Your task to perform on an android device: Open notification settings Image 0: 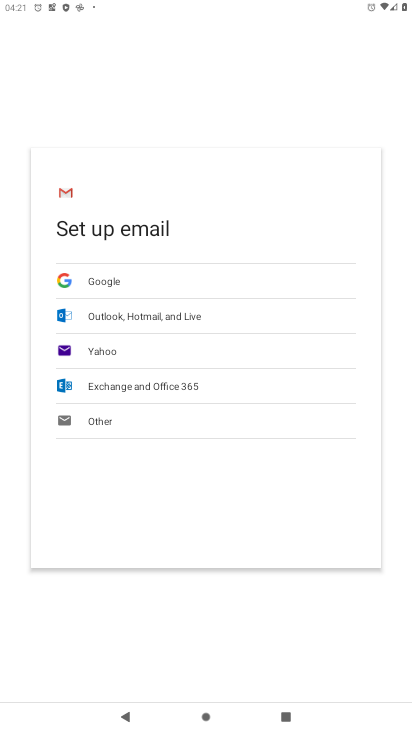
Step 0: press home button
Your task to perform on an android device: Open notification settings Image 1: 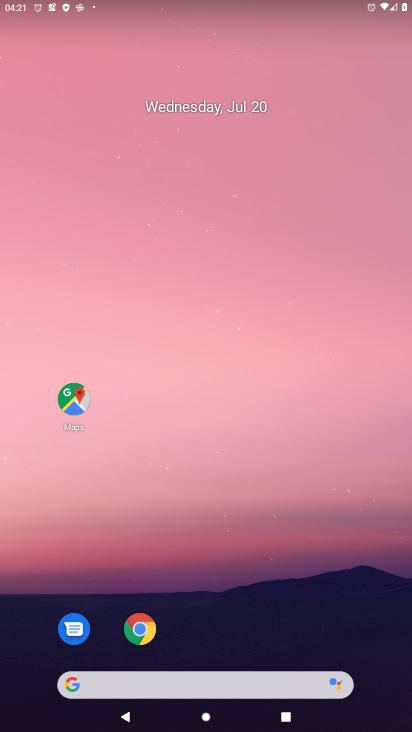
Step 1: drag from (384, 664) to (367, 144)
Your task to perform on an android device: Open notification settings Image 2: 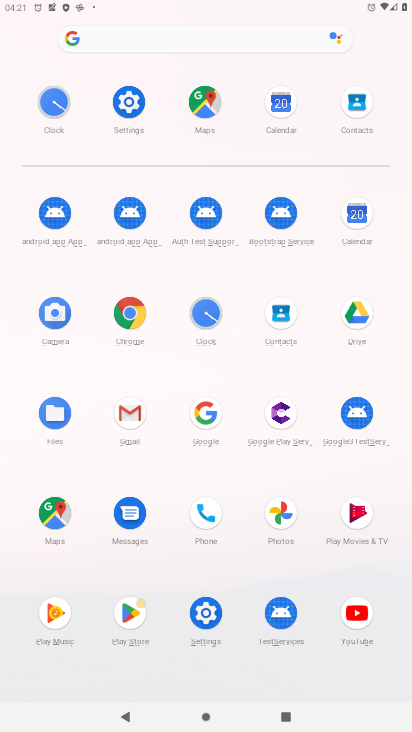
Step 2: click (203, 612)
Your task to perform on an android device: Open notification settings Image 3: 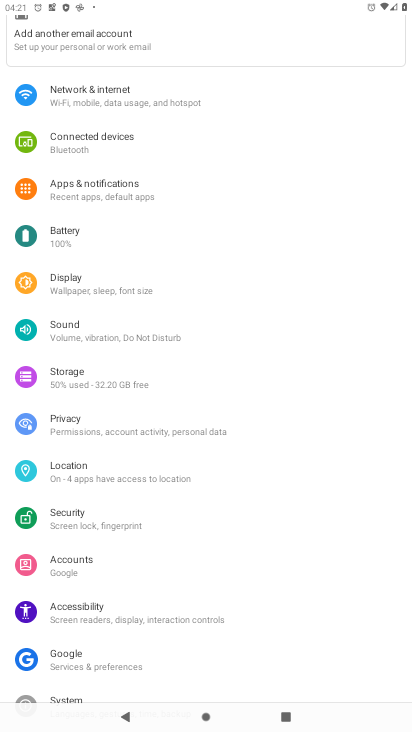
Step 3: click (94, 192)
Your task to perform on an android device: Open notification settings Image 4: 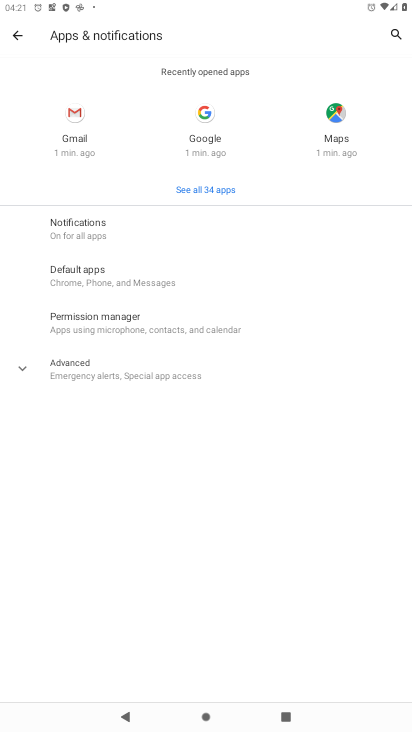
Step 4: click (91, 224)
Your task to perform on an android device: Open notification settings Image 5: 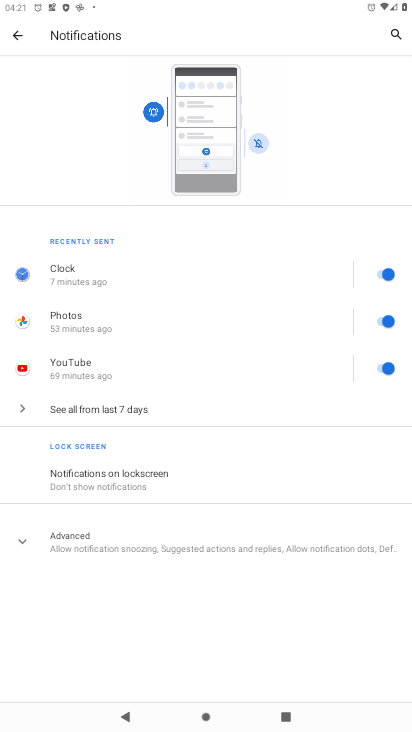
Step 5: click (22, 541)
Your task to perform on an android device: Open notification settings Image 6: 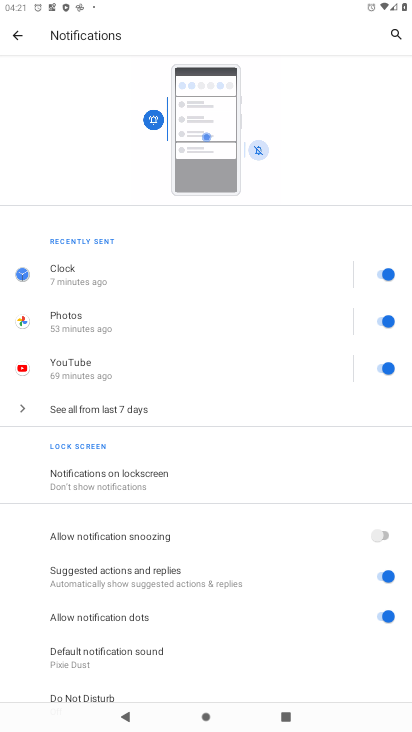
Step 6: click (379, 611)
Your task to perform on an android device: Open notification settings Image 7: 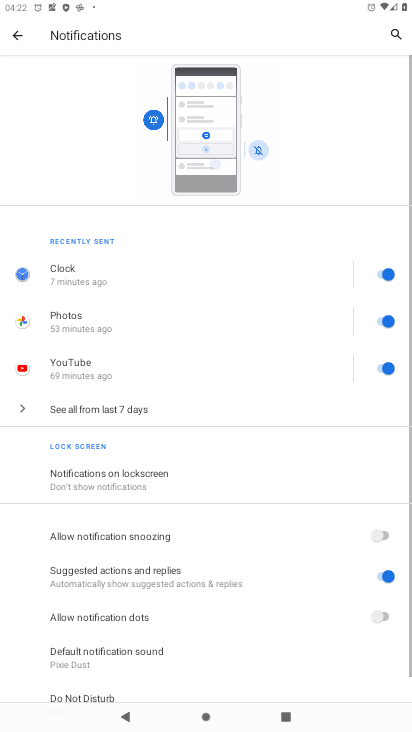
Step 7: click (385, 530)
Your task to perform on an android device: Open notification settings Image 8: 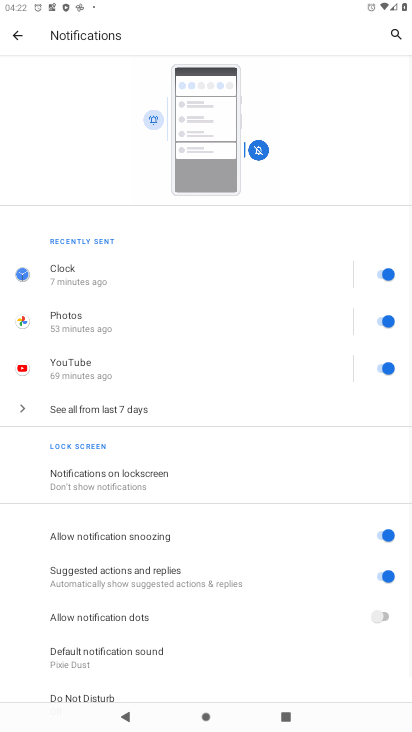
Step 8: task complete